Your task to perform on an android device: open wifi settings Image 0: 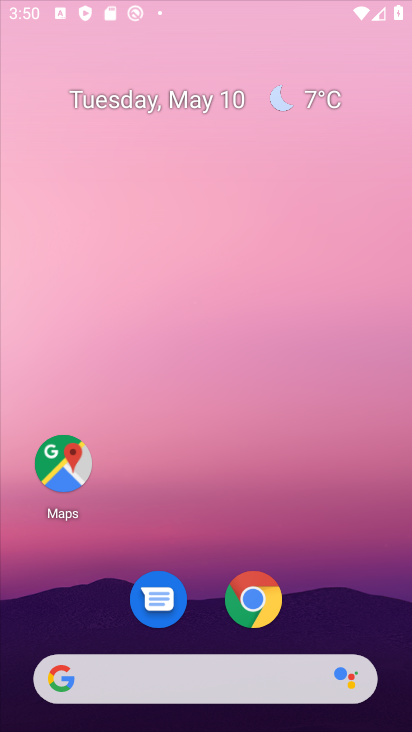
Step 0: drag from (230, 698) to (239, 68)
Your task to perform on an android device: open wifi settings Image 1: 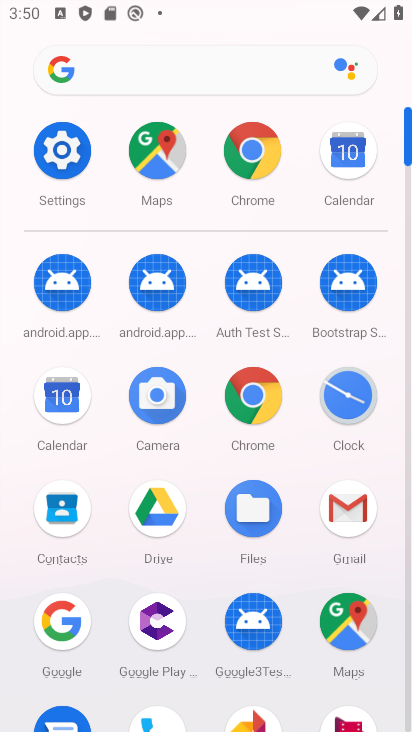
Step 1: click (62, 155)
Your task to perform on an android device: open wifi settings Image 2: 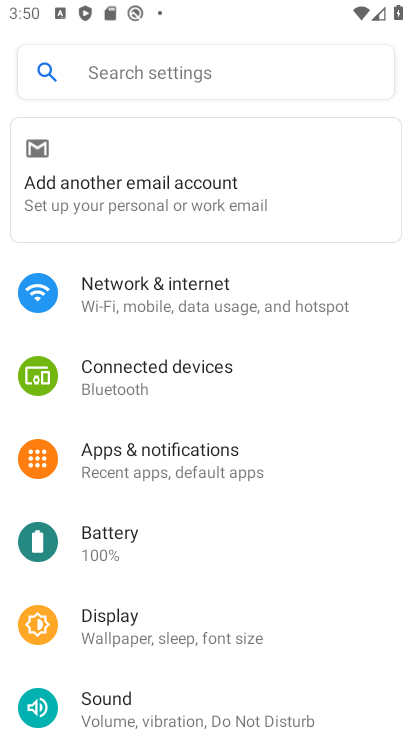
Step 2: click (191, 315)
Your task to perform on an android device: open wifi settings Image 3: 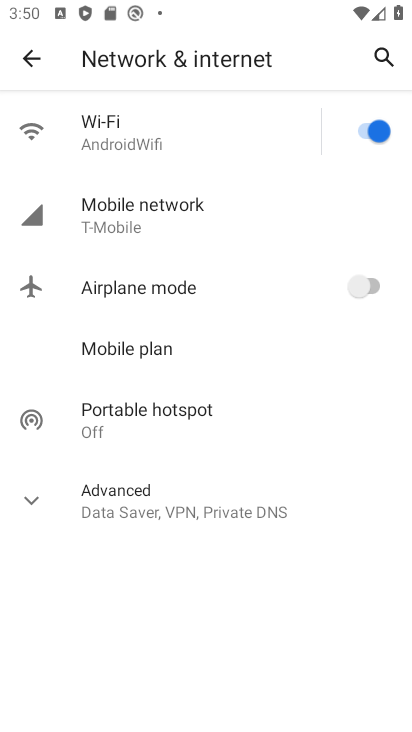
Step 3: click (127, 126)
Your task to perform on an android device: open wifi settings Image 4: 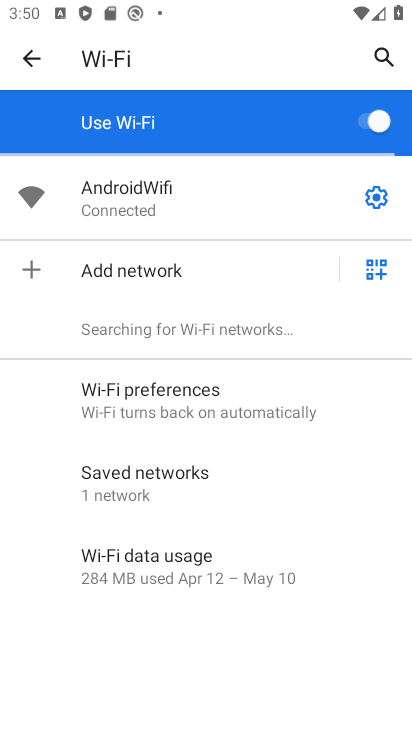
Step 4: task complete